Your task to perform on an android device: turn vacation reply on in the gmail app Image 0: 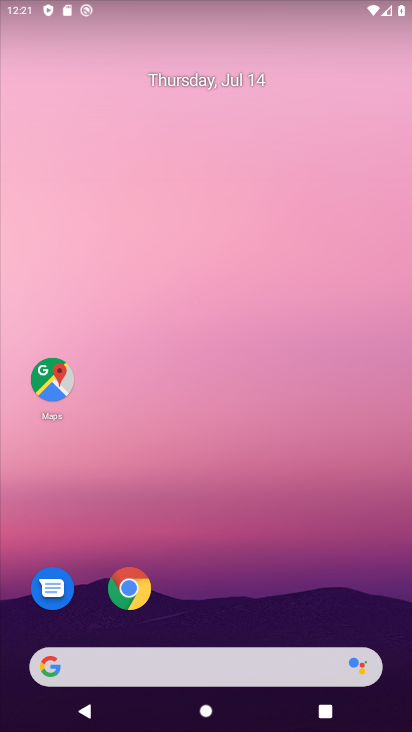
Step 0: drag from (209, 576) to (218, 399)
Your task to perform on an android device: turn vacation reply on in the gmail app Image 1: 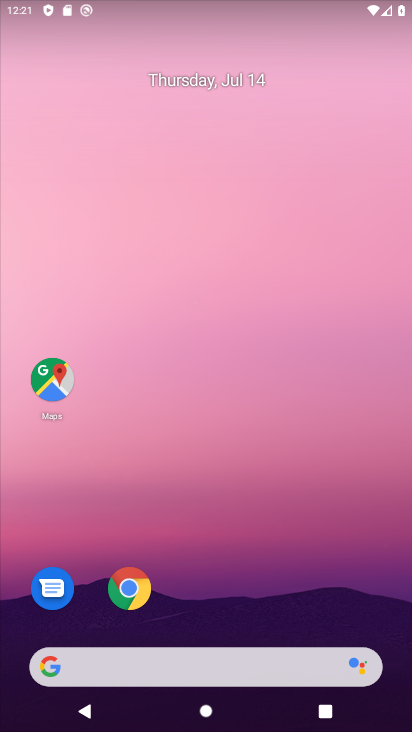
Step 1: drag from (266, 332) to (268, 150)
Your task to perform on an android device: turn vacation reply on in the gmail app Image 2: 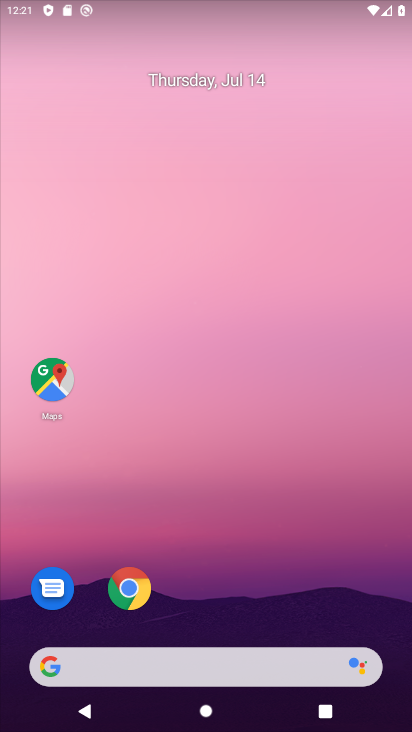
Step 2: drag from (238, 639) to (298, 172)
Your task to perform on an android device: turn vacation reply on in the gmail app Image 3: 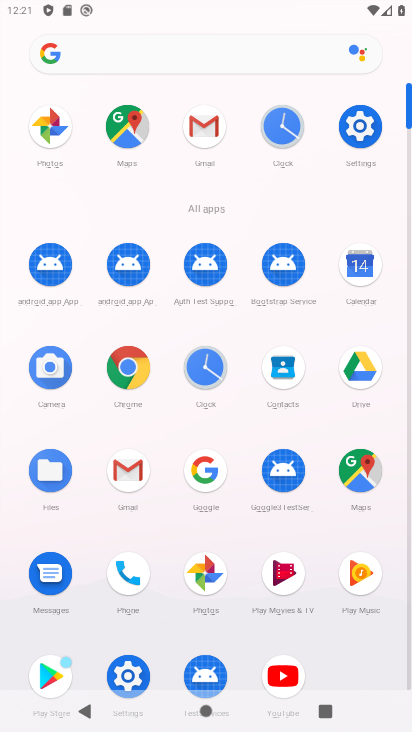
Step 3: click (132, 364)
Your task to perform on an android device: turn vacation reply on in the gmail app Image 4: 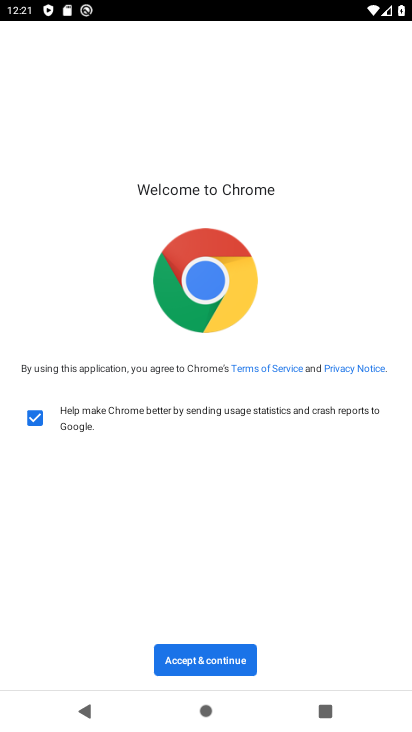
Step 4: click (191, 653)
Your task to perform on an android device: turn vacation reply on in the gmail app Image 5: 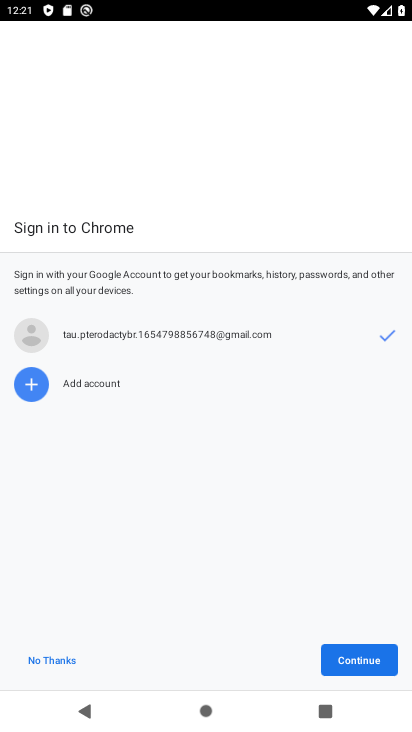
Step 5: click (365, 647)
Your task to perform on an android device: turn vacation reply on in the gmail app Image 6: 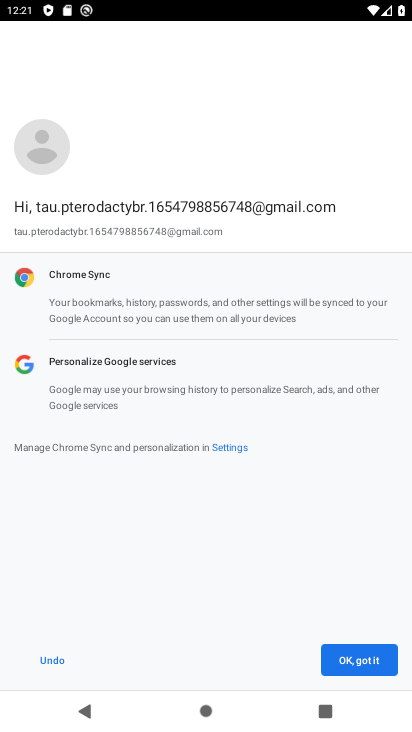
Step 6: click (368, 652)
Your task to perform on an android device: turn vacation reply on in the gmail app Image 7: 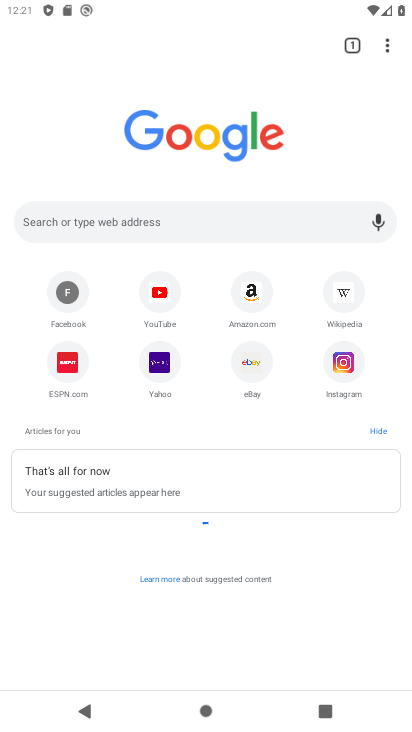
Step 7: press home button
Your task to perform on an android device: turn vacation reply on in the gmail app Image 8: 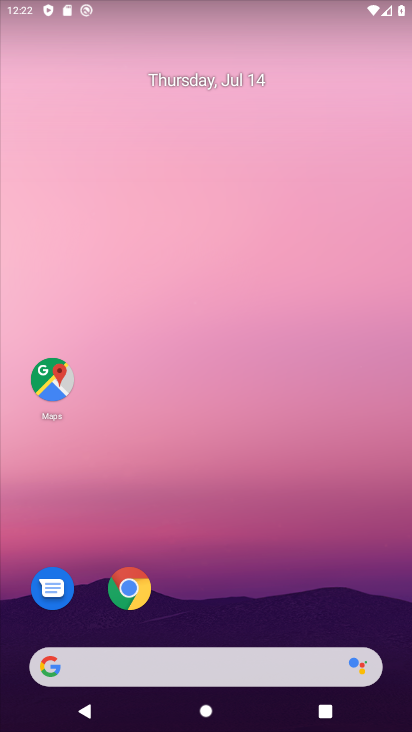
Step 8: drag from (204, 631) to (206, 128)
Your task to perform on an android device: turn vacation reply on in the gmail app Image 9: 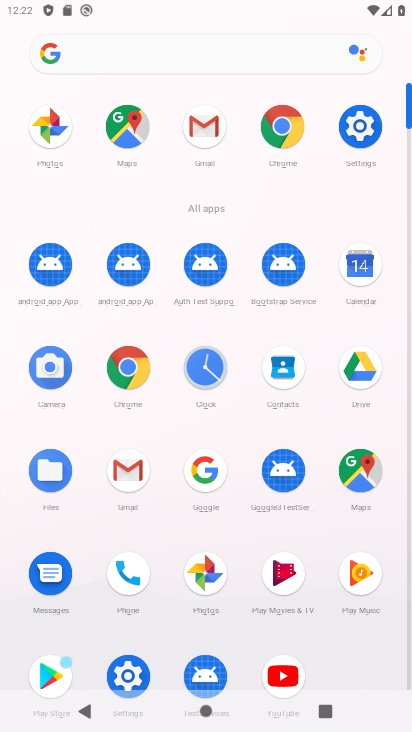
Step 9: click (211, 128)
Your task to perform on an android device: turn vacation reply on in the gmail app Image 10: 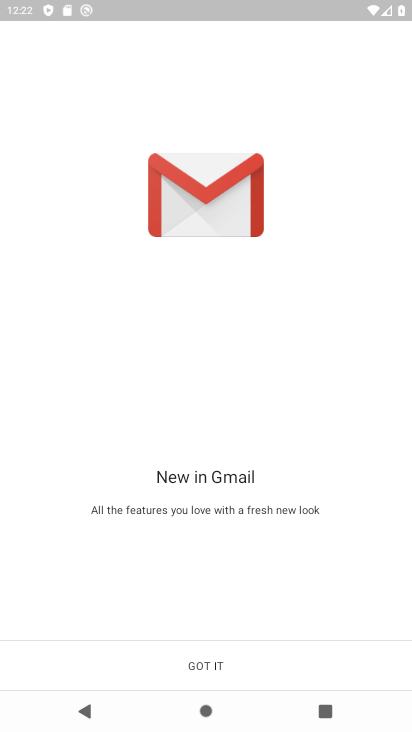
Step 10: click (214, 653)
Your task to perform on an android device: turn vacation reply on in the gmail app Image 11: 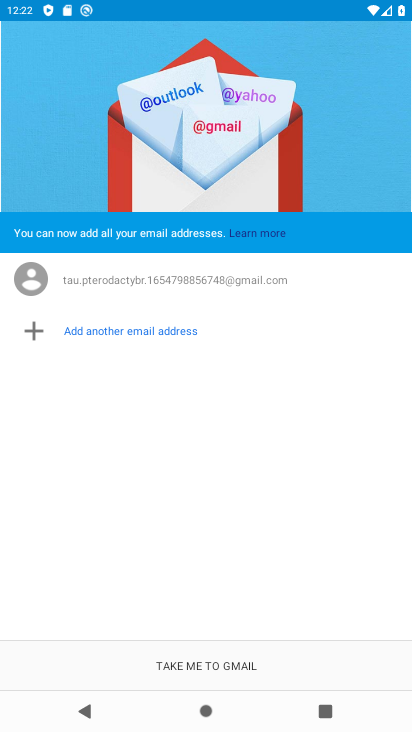
Step 11: click (219, 667)
Your task to perform on an android device: turn vacation reply on in the gmail app Image 12: 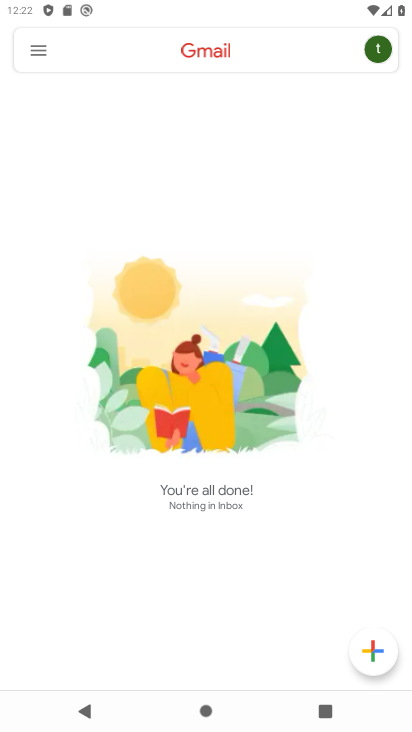
Step 12: click (36, 44)
Your task to perform on an android device: turn vacation reply on in the gmail app Image 13: 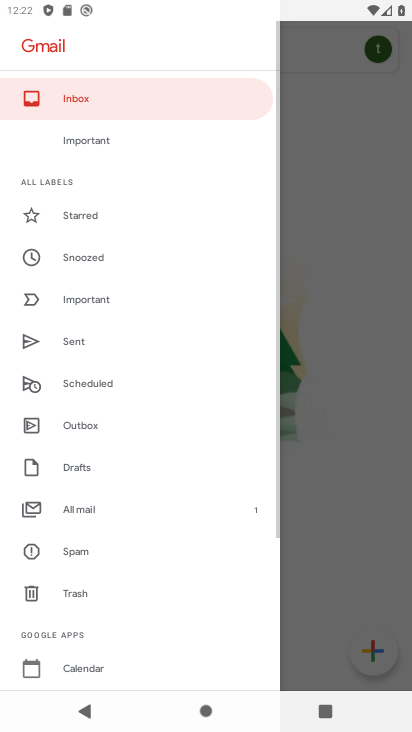
Step 13: drag from (82, 625) to (102, 221)
Your task to perform on an android device: turn vacation reply on in the gmail app Image 14: 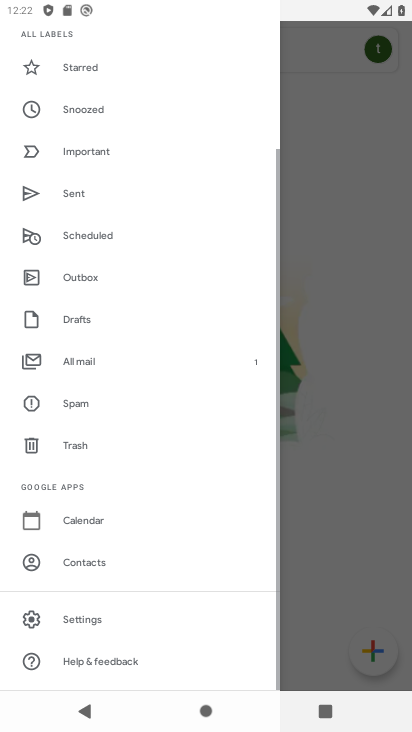
Step 14: click (96, 612)
Your task to perform on an android device: turn vacation reply on in the gmail app Image 15: 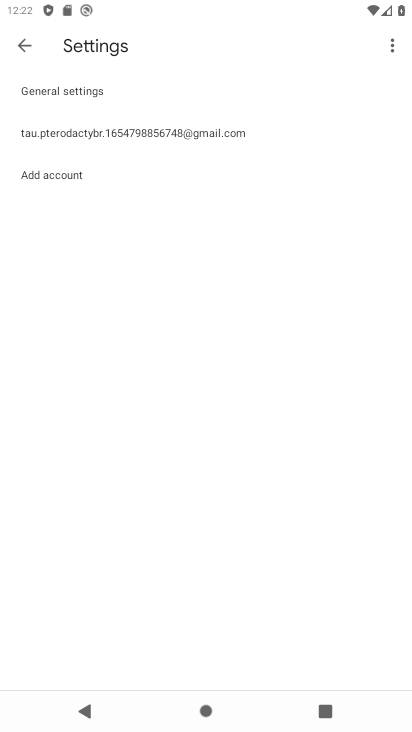
Step 15: click (85, 98)
Your task to perform on an android device: turn vacation reply on in the gmail app Image 16: 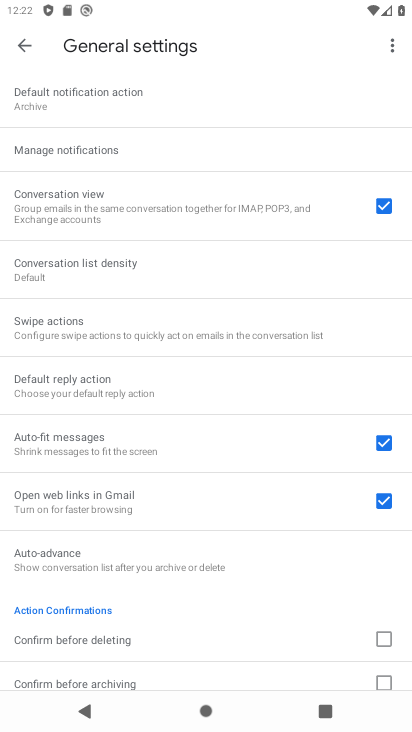
Step 16: drag from (157, 533) to (227, 213)
Your task to perform on an android device: turn vacation reply on in the gmail app Image 17: 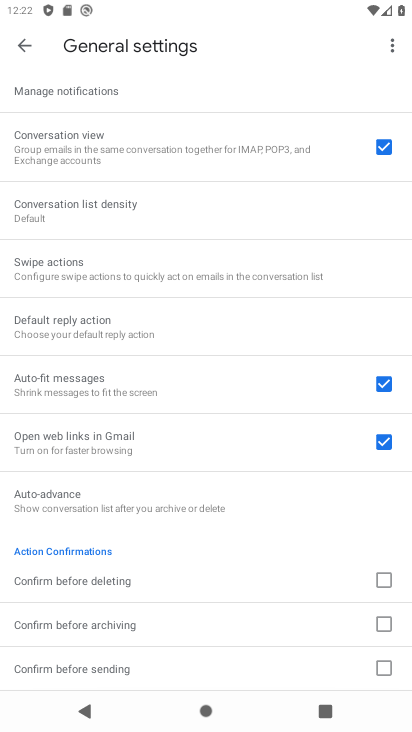
Step 17: click (21, 38)
Your task to perform on an android device: turn vacation reply on in the gmail app Image 18: 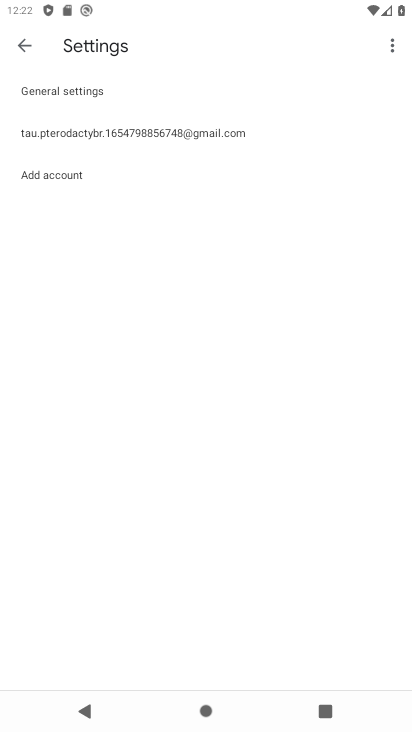
Step 18: click (127, 128)
Your task to perform on an android device: turn vacation reply on in the gmail app Image 19: 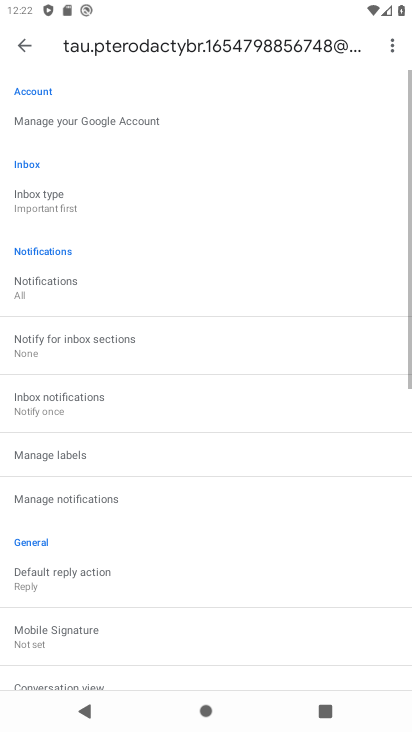
Step 19: drag from (142, 623) to (189, 265)
Your task to perform on an android device: turn vacation reply on in the gmail app Image 20: 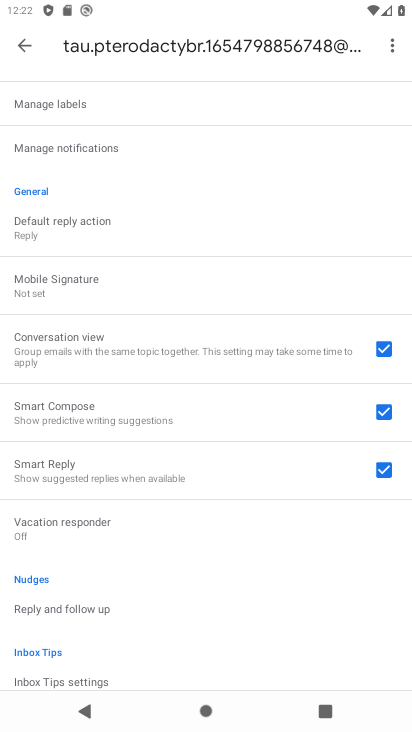
Step 20: click (122, 512)
Your task to perform on an android device: turn vacation reply on in the gmail app Image 21: 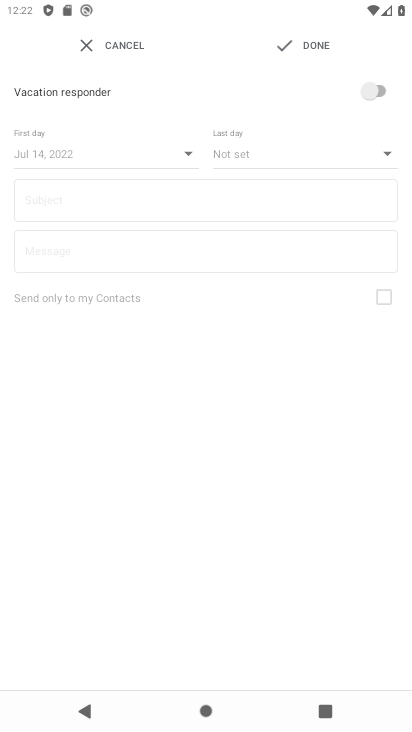
Step 21: click (374, 88)
Your task to perform on an android device: turn vacation reply on in the gmail app Image 22: 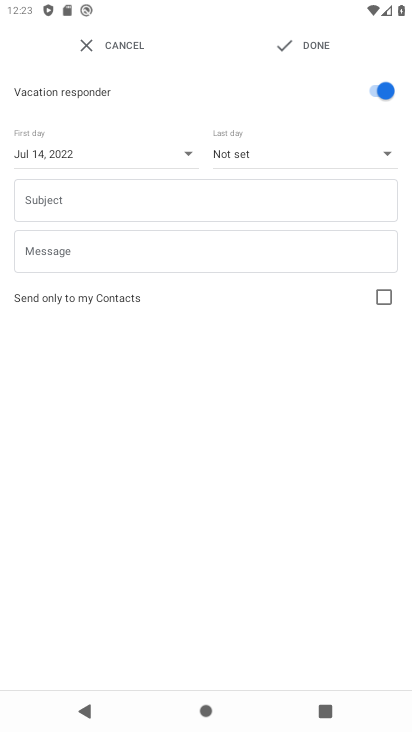
Step 22: task complete